Your task to perform on an android device: turn pop-ups off in chrome Image 0: 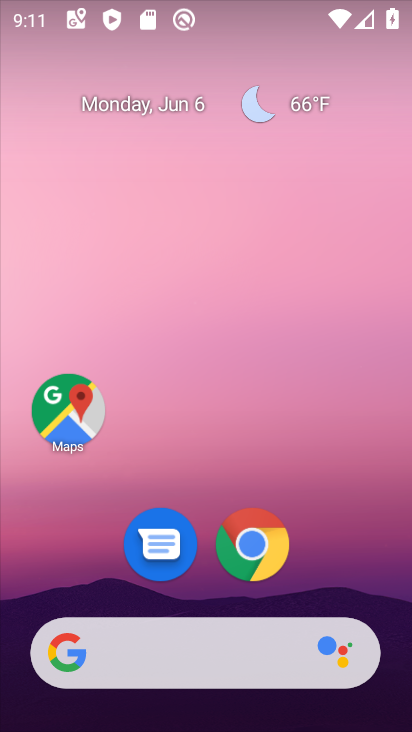
Step 0: click (251, 549)
Your task to perform on an android device: turn pop-ups off in chrome Image 1: 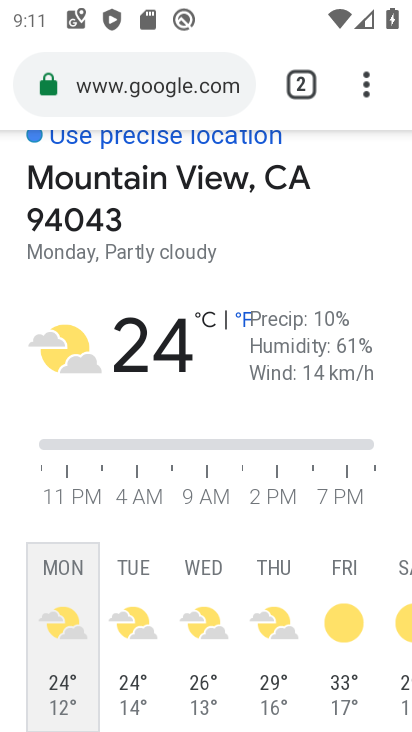
Step 1: click (368, 80)
Your task to perform on an android device: turn pop-ups off in chrome Image 2: 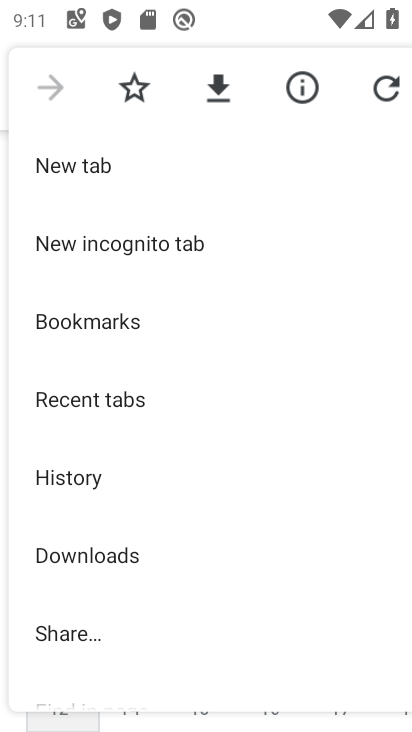
Step 2: drag from (126, 579) to (66, 256)
Your task to perform on an android device: turn pop-ups off in chrome Image 3: 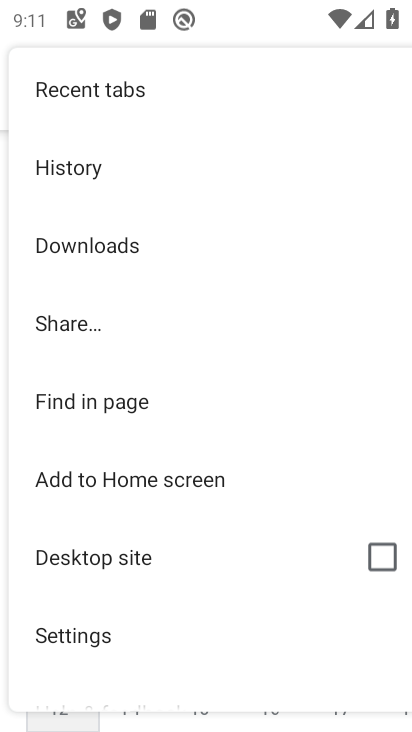
Step 3: drag from (112, 554) to (142, 274)
Your task to perform on an android device: turn pop-ups off in chrome Image 4: 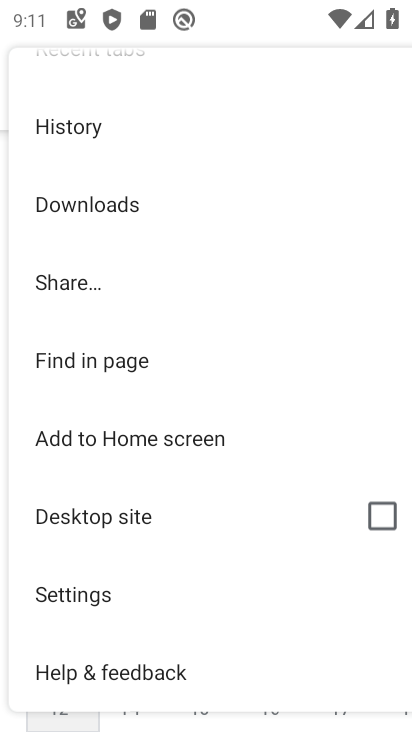
Step 4: click (84, 604)
Your task to perform on an android device: turn pop-ups off in chrome Image 5: 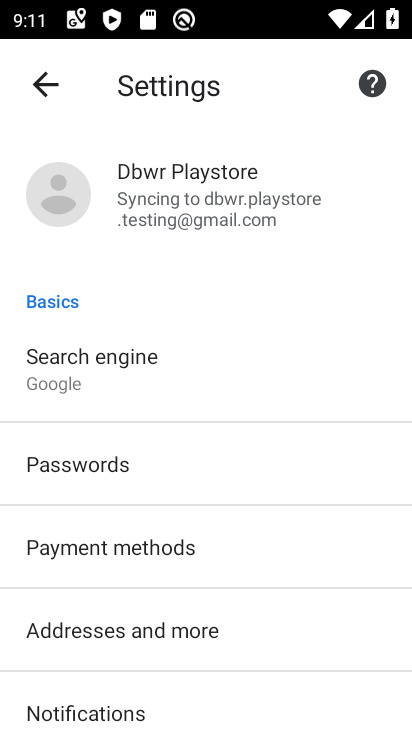
Step 5: drag from (160, 595) to (223, 267)
Your task to perform on an android device: turn pop-ups off in chrome Image 6: 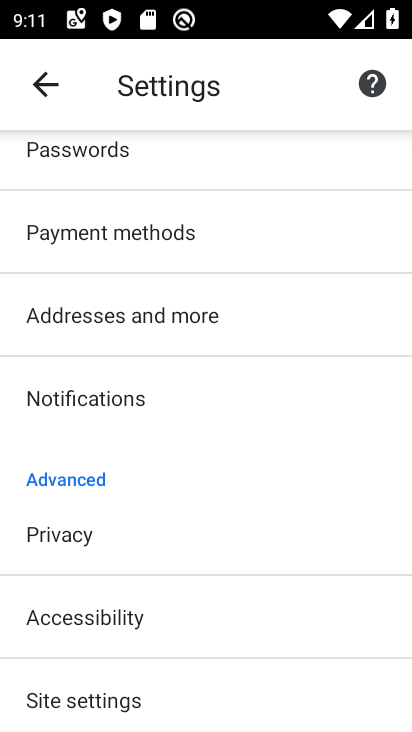
Step 6: click (105, 692)
Your task to perform on an android device: turn pop-ups off in chrome Image 7: 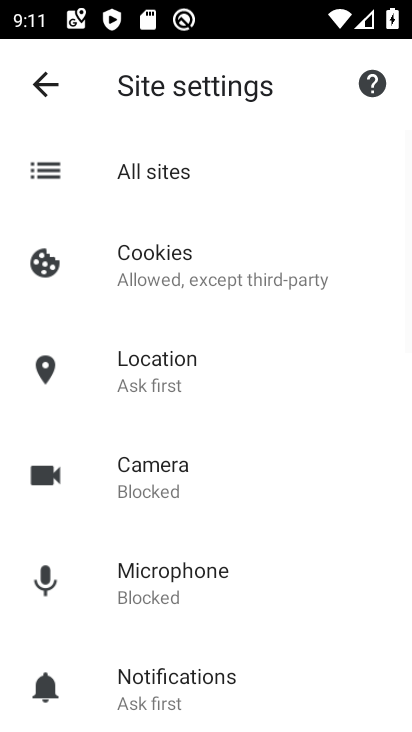
Step 7: drag from (172, 579) to (205, 263)
Your task to perform on an android device: turn pop-ups off in chrome Image 8: 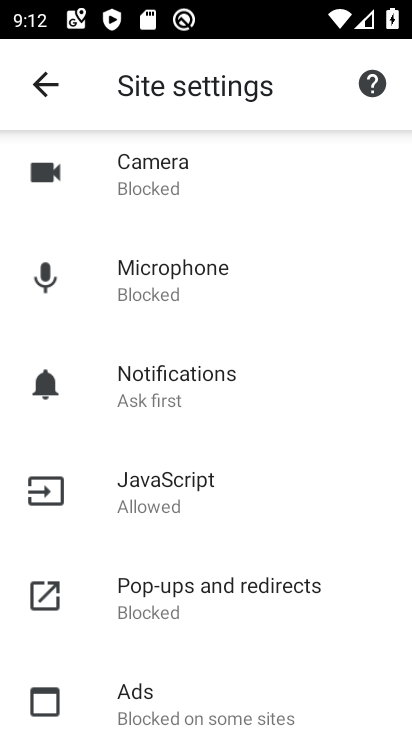
Step 8: click (172, 590)
Your task to perform on an android device: turn pop-ups off in chrome Image 9: 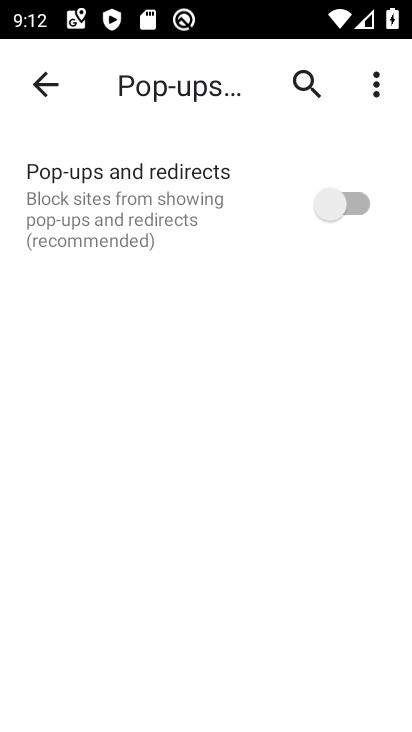
Step 9: task complete